Your task to perform on an android device: Turn off the flashlight Image 0: 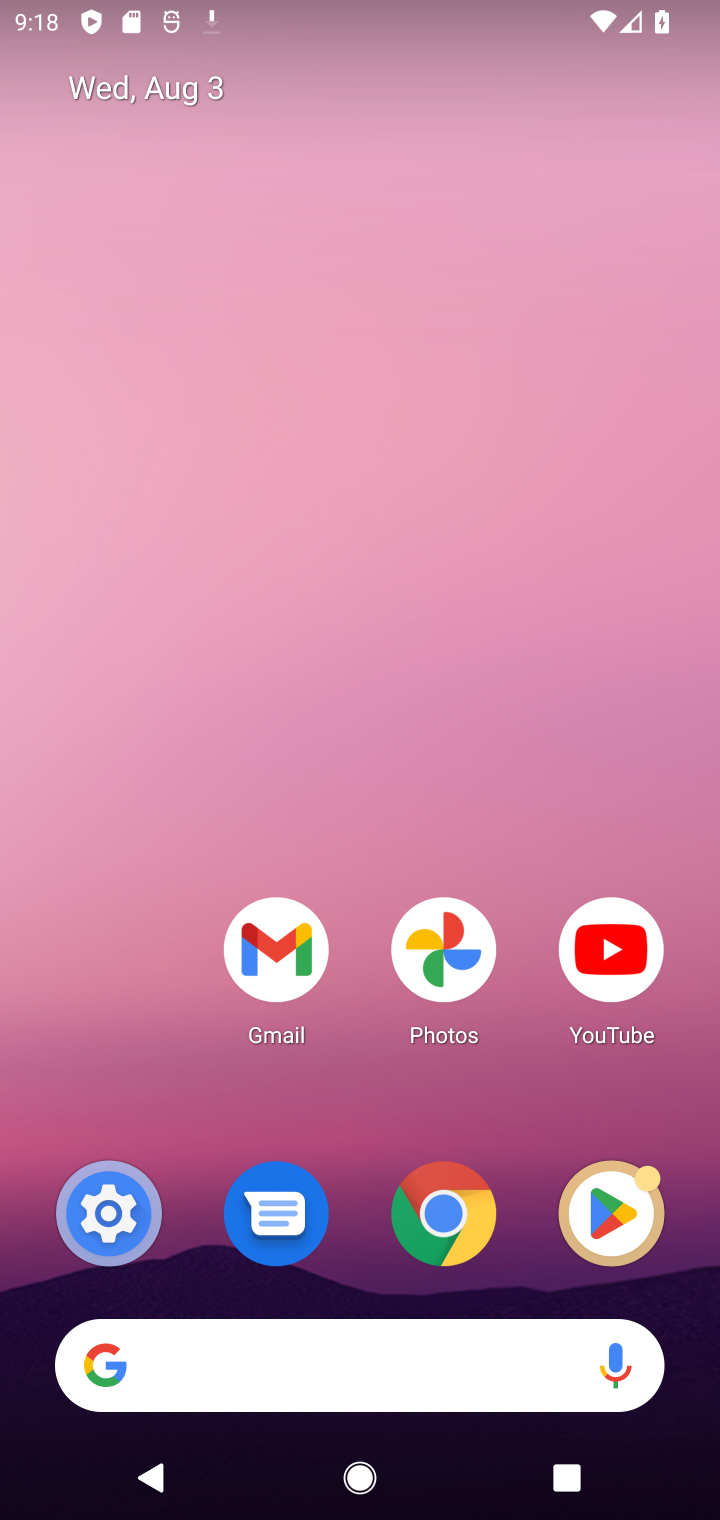
Step 0: drag from (483, 18) to (359, 657)
Your task to perform on an android device: Turn off the flashlight Image 1: 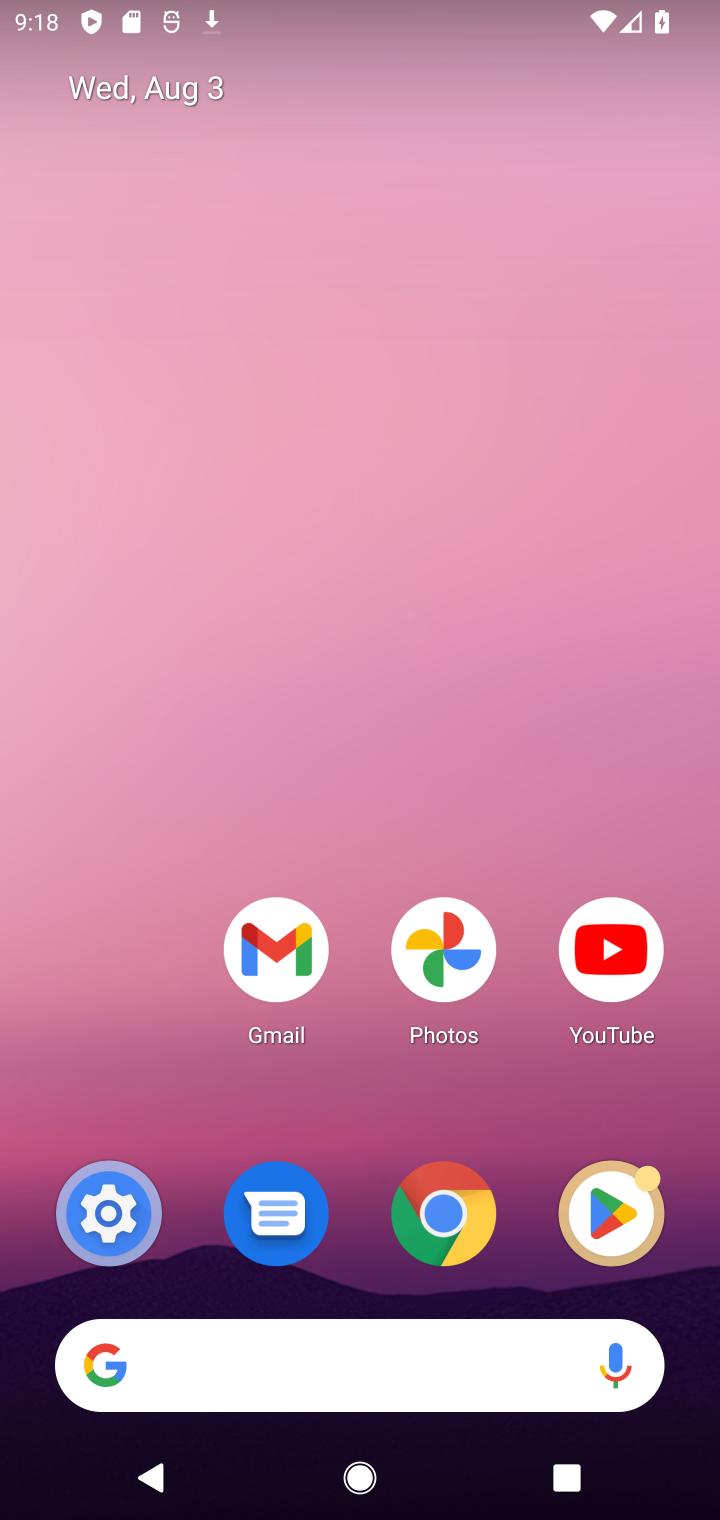
Step 1: drag from (402, 6) to (477, 1463)
Your task to perform on an android device: Turn off the flashlight Image 2: 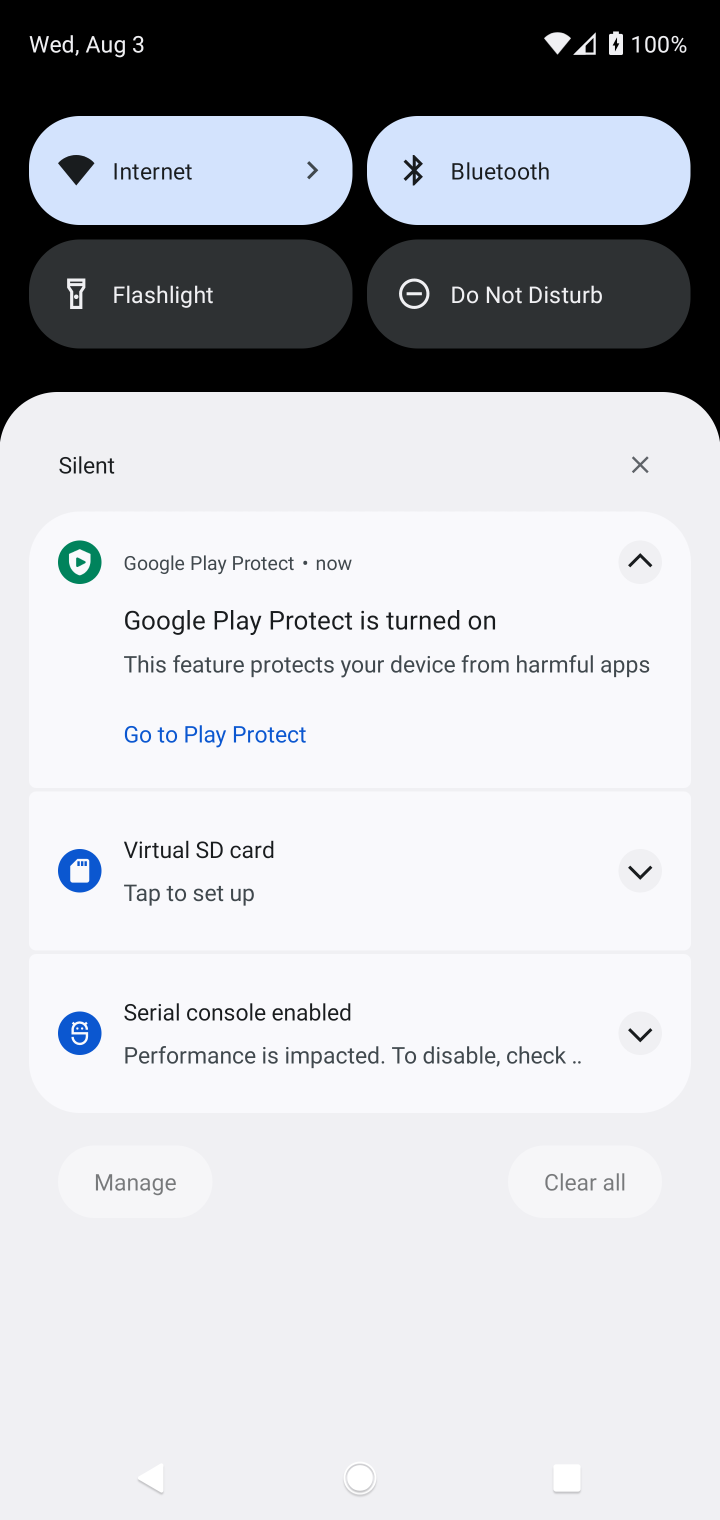
Step 2: click (234, 325)
Your task to perform on an android device: Turn off the flashlight Image 3: 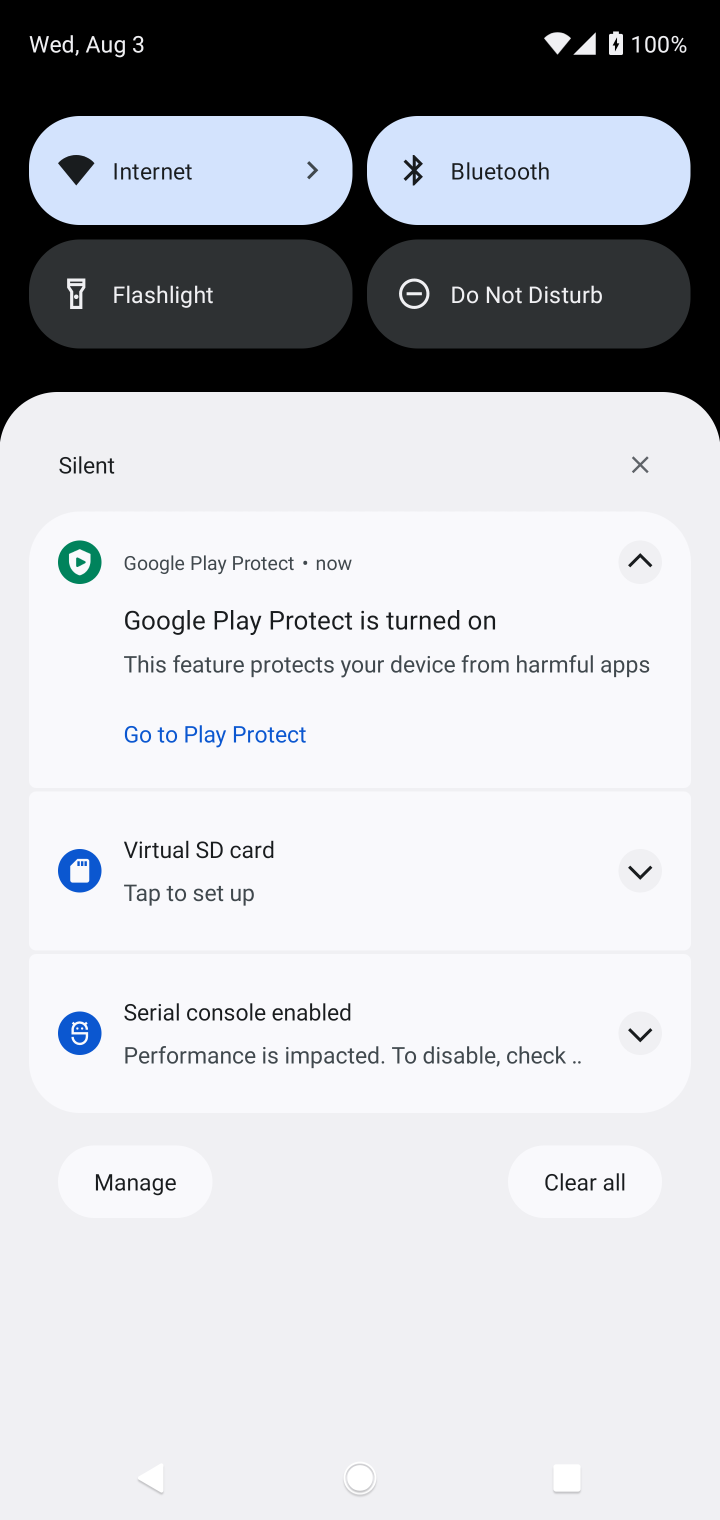
Step 3: task complete